Your task to perform on an android device: Open network settings Image 0: 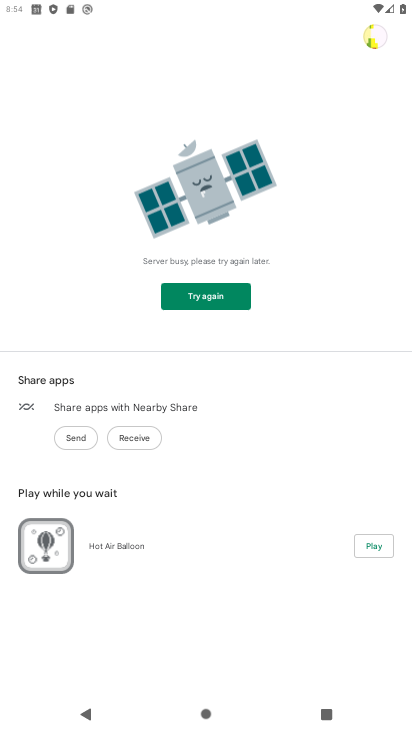
Step 0: press home button
Your task to perform on an android device: Open network settings Image 1: 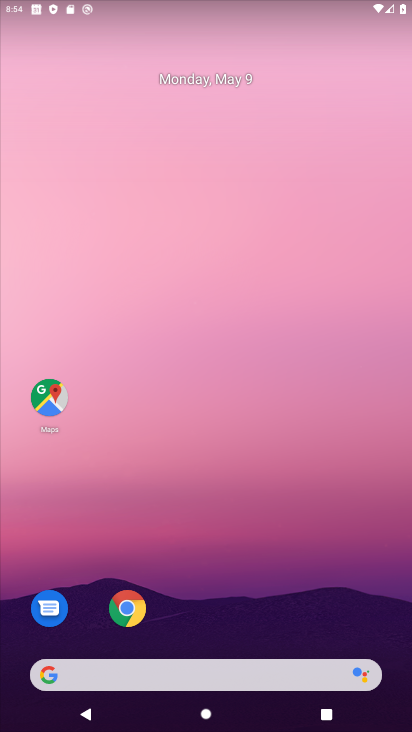
Step 1: drag from (327, 549) to (402, 51)
Your task to perform on an android device: Open network settings Image 2: 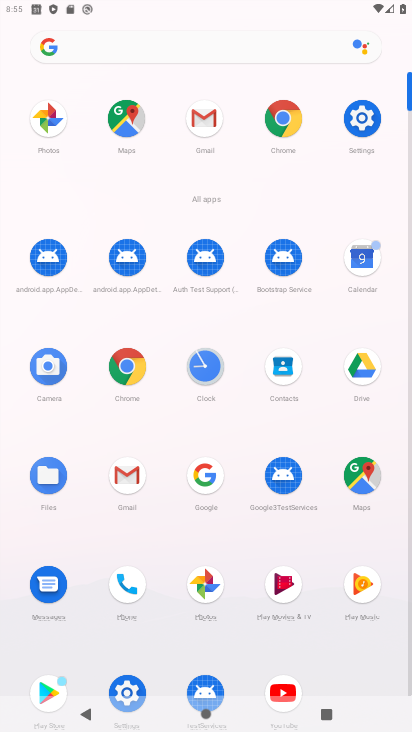
Step 2: click (343, 118)
Your task to perform on an android device: Open network settings Image 3: 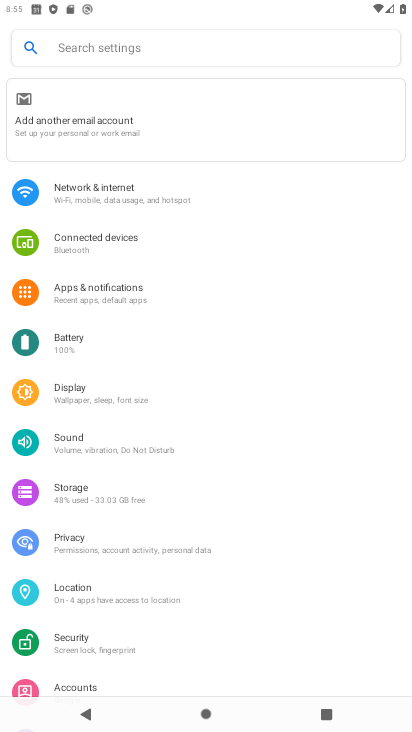
Step 3: click (71, 209)
Your task to perform on an android device: Open network settings Image 4: 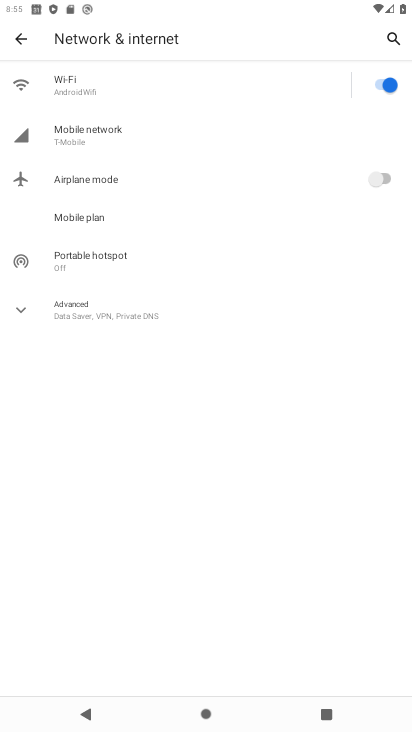
Step 4: task complete